Your task to perform on an android device: Open the Play Movies app and select the watchlist tab. Image 0: 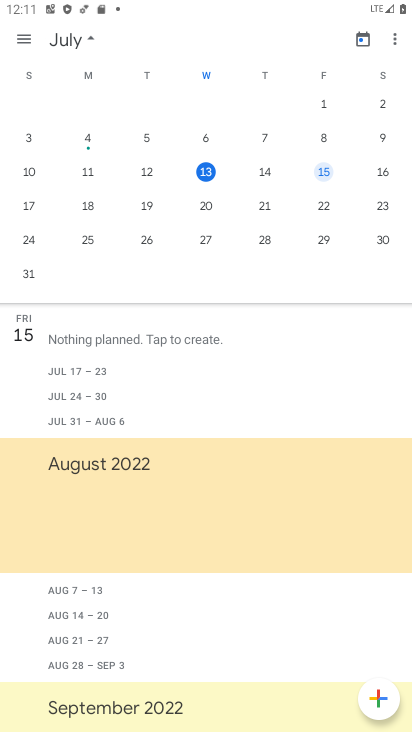
Step 0: press home button
Your task to perform on an android device: Open the Play Movies app and select the watchlist tab. Image 1: 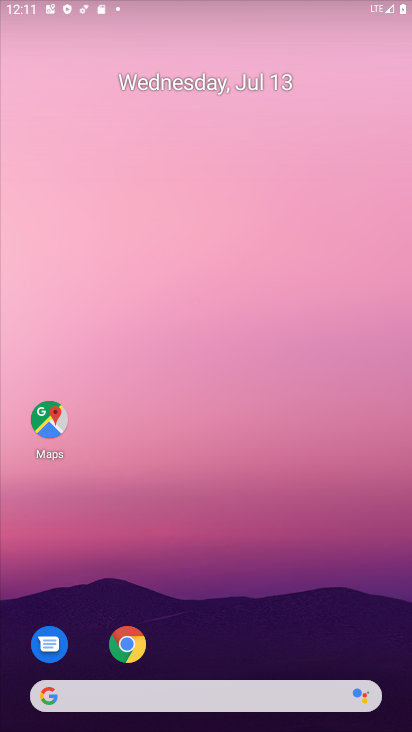
Step 1: drag from (213, 652) to (294, 98)
Your task to perform on an android device: Open the Play Movies app and select the watchlist tab. Image 2: 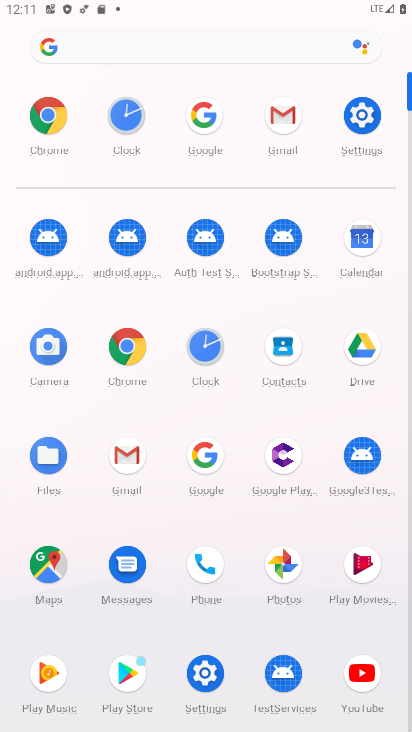
Step 2: drag from (324, 594) to (335, 377)
Your task to perform on an android device: Open the Play Movies app and select the watchlist tab. Image 3: 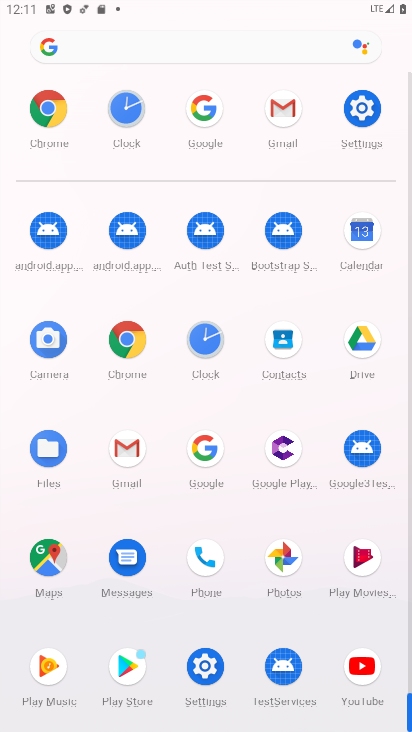
Step 3: click (363, 539)
Your task to perform on an android device: Open the Play Movies app and select the watchlist tab. Image 4: 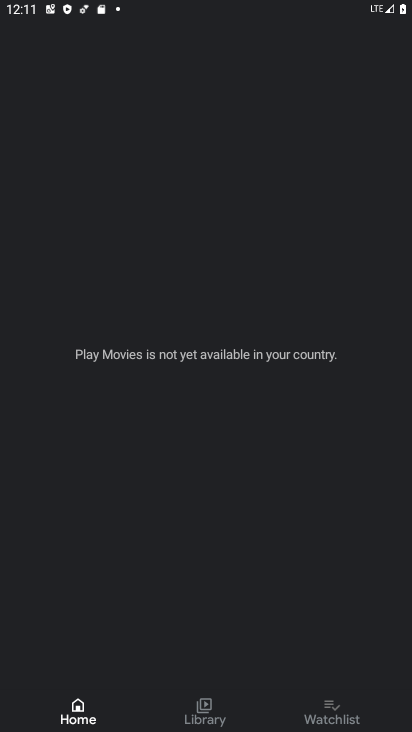
Step 4: click (339, 708)
Your task to perform on an android device: Open the Play Movies app and select the watchlist tab. Image 5: 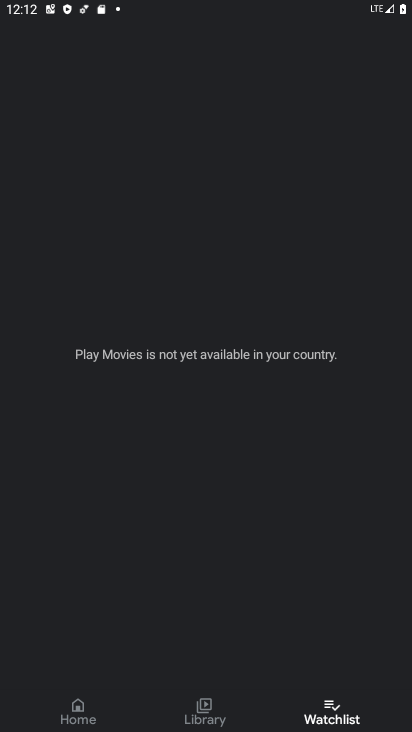
Step 5: task complete